Your task to perform on an android device: Open calendar and show me the first week of next month Image 0: 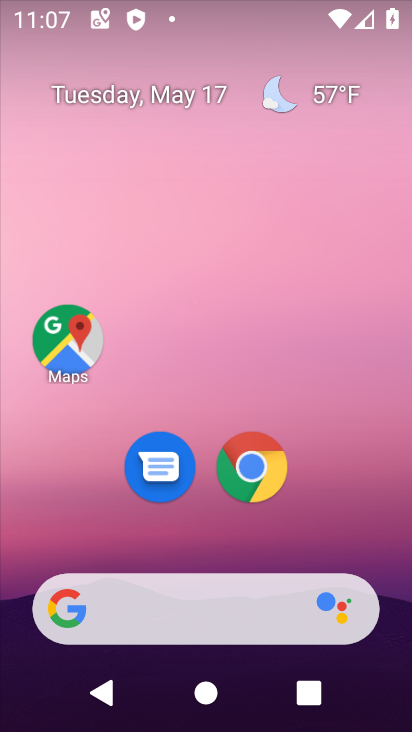
Step 0: drag from (196, 649) to (342, 178)
Your task to perform on an android device: Open calendar and show me the first week of next month Image 1: 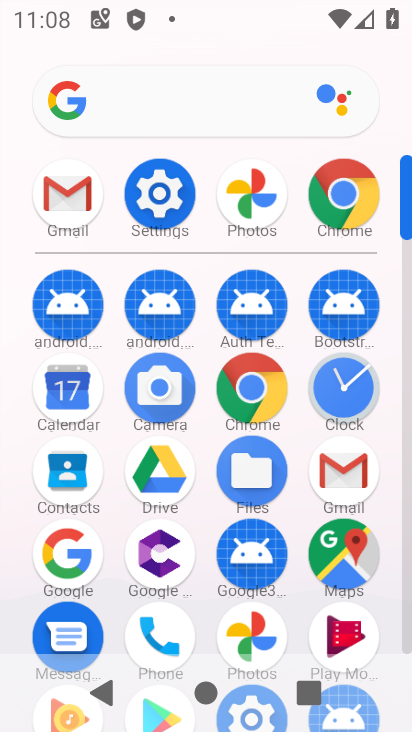
Step 1: click (47, 385)
Your task to perform on an android device: Open calendar and show me the first week of next month Image 2: 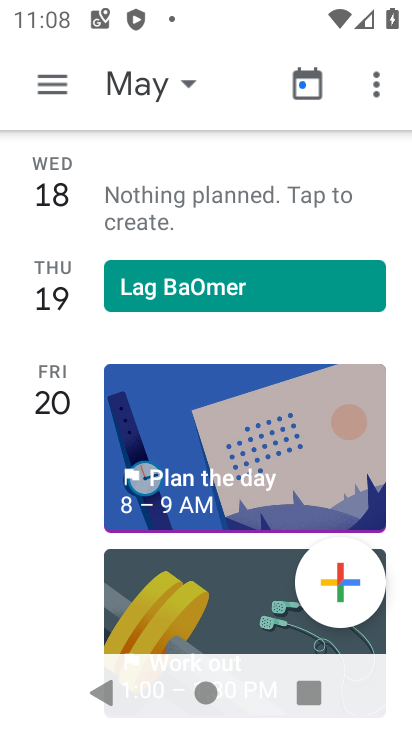
Step 2: click (74, 85)
Your task to perform on an android device: Open calendar and show me the first week of next month Image 3: 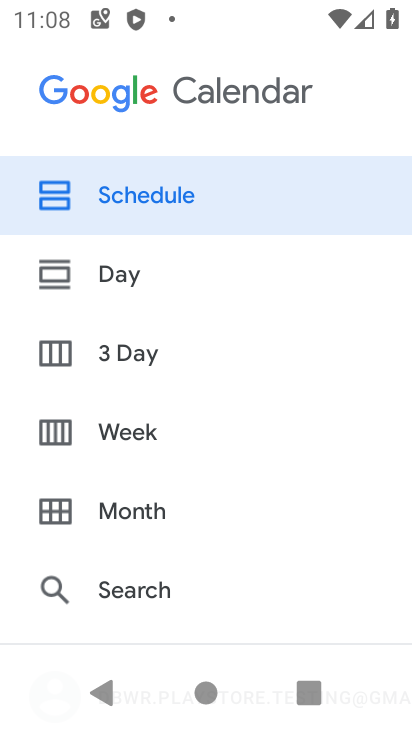
Step 3: click (121, 506)
Your task to perform on an android device: Open calendar and show me the first week of next month Image 4: 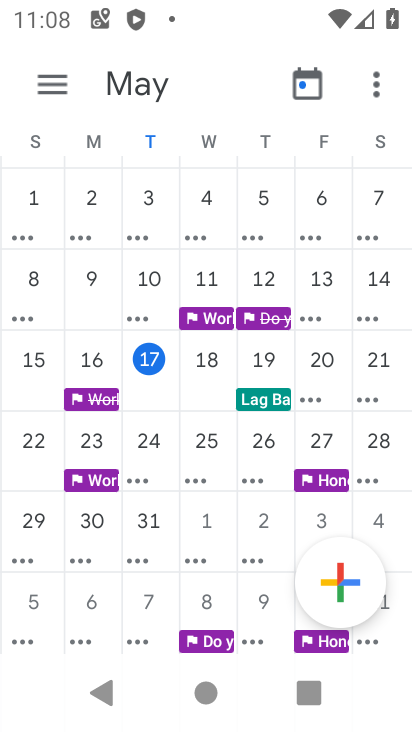
Step 4: drag from (381, 434) to (0, 413)
Your task to perform on an android device: Open calendar and show me the first week of next month Image 5: 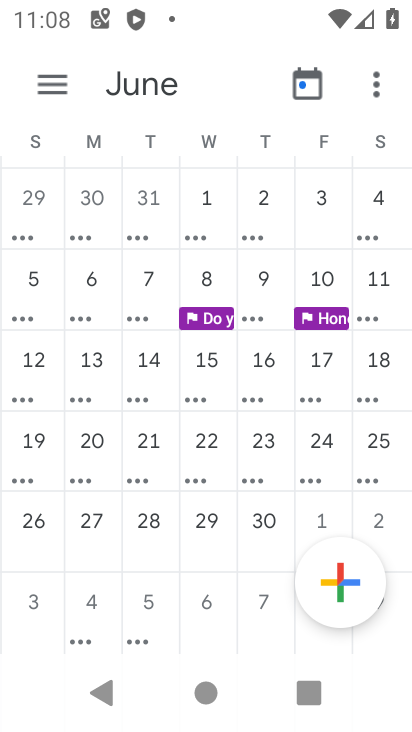
Step 5: click (202, 208)
Your task to perform on an android device: Open calendar and show me the first week of next month Image 6: 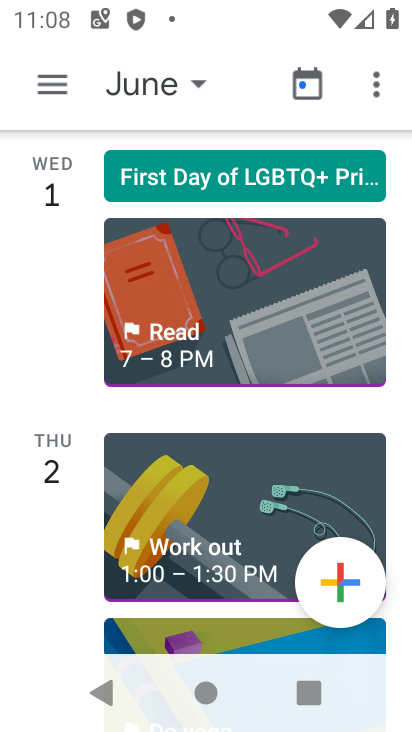
Step 6: task complete